Your task to perform on an android device: find which apps use the phone's location Image 0: 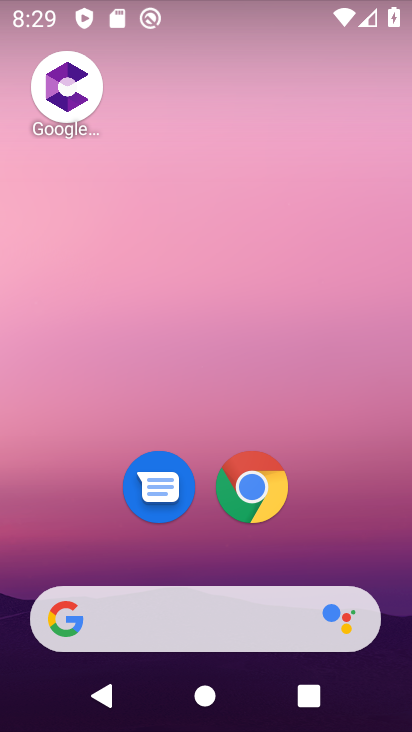
Step 0: drag from (237, 651) to (370, 115)
Your task to perform on an android device: find which apps use the phone's location Image 1: 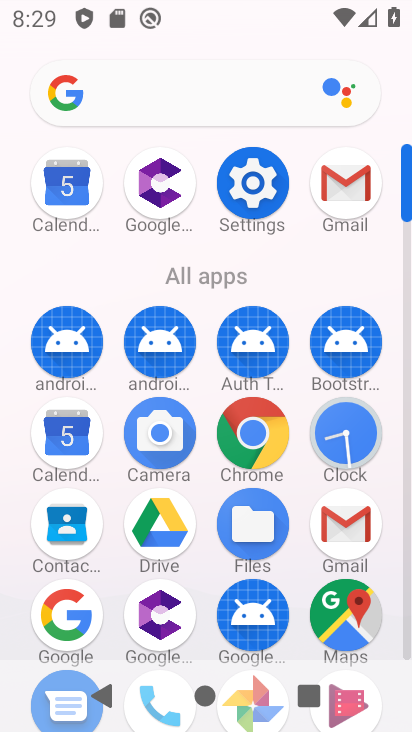
Step 1: click (366, 626)
Your task to perform on an android device: find which apps use the phone's location Image 2: 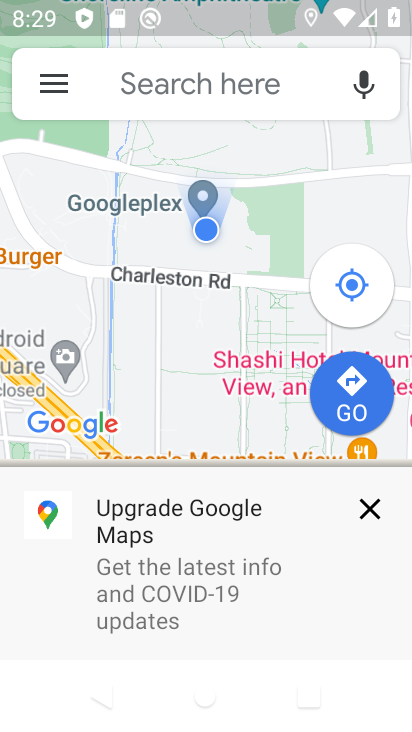
Step 2: press home button
Your task to perform on an android device: find which apps use the phone's location Image 3: 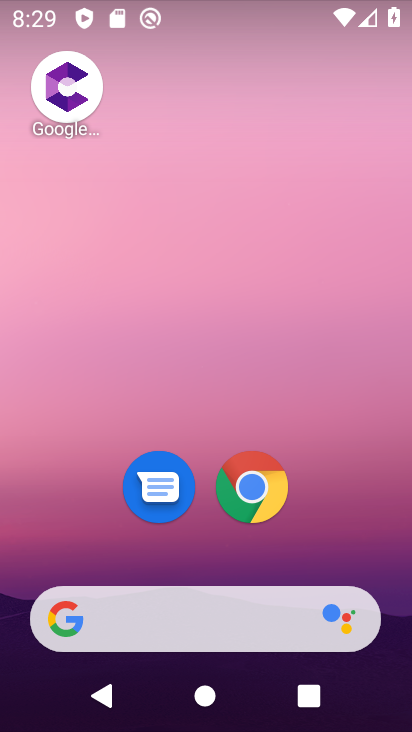
Step 3: drag from (301, 660) to (276, 123)
Your task to perform on an android device: find which apps use the phone's location Image 4: 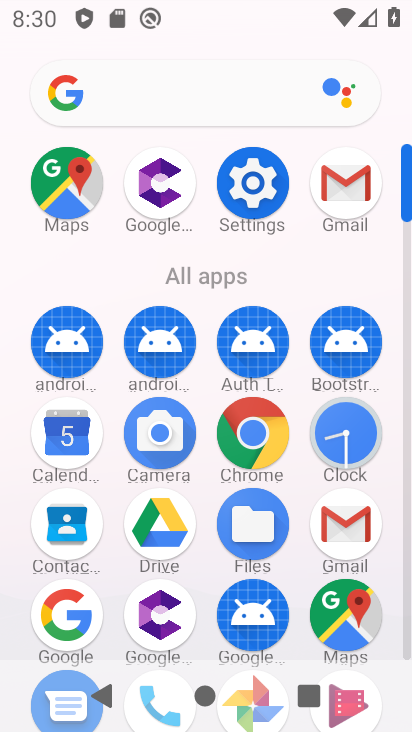
Step 4: click (245, 180)
Your task to perform on an android device: find which apps use the phone's location Image 5: 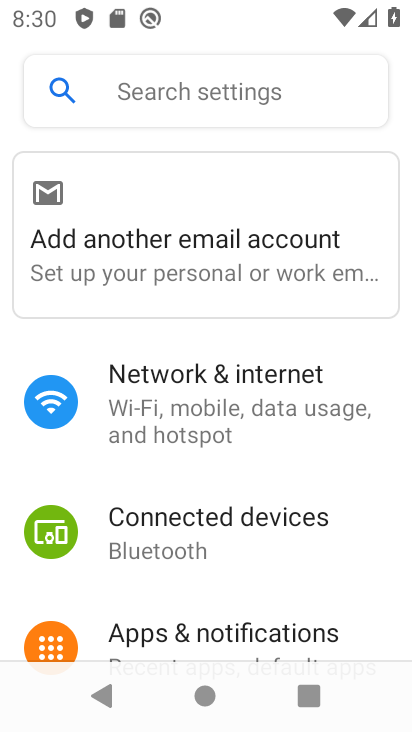
Step 5: click (202, 94)
Your task to perform on an android device: find which apps use the phone's location Image 6: 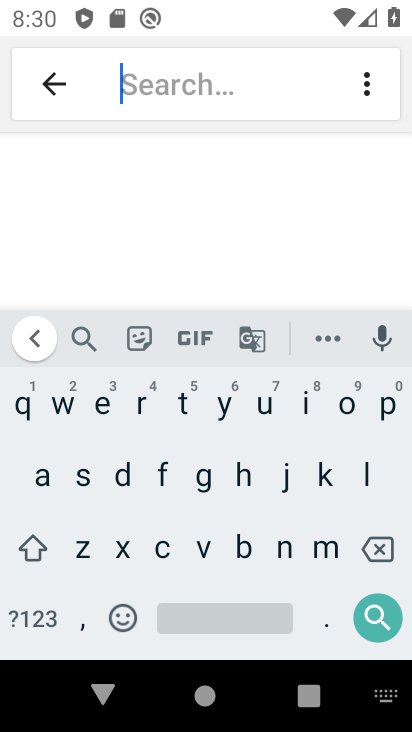
Step 6: click (364, 475)
Your task to perform on an android device: find which apps use the phone's location Image 7: 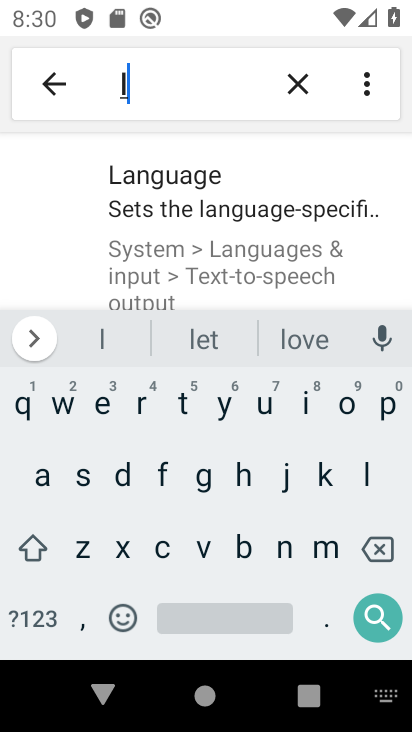
Step 7: click (340, 410)
Your task to perform on an android device: find which apps use the phone's location Image 8: 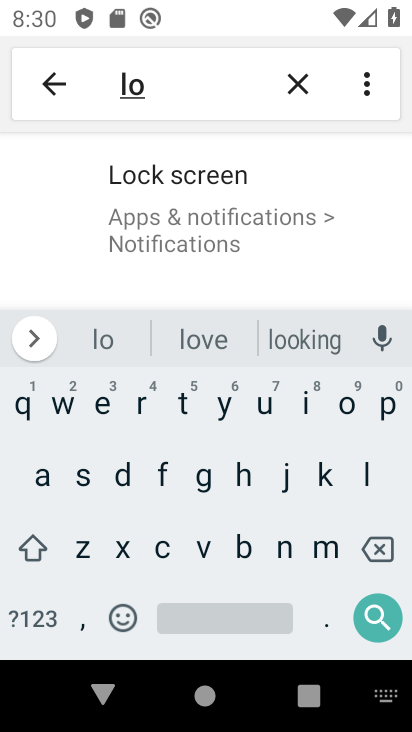
Step 8: click (159, 554)
Your task to perform on an android device: find which apps use the phone's location Image 9: 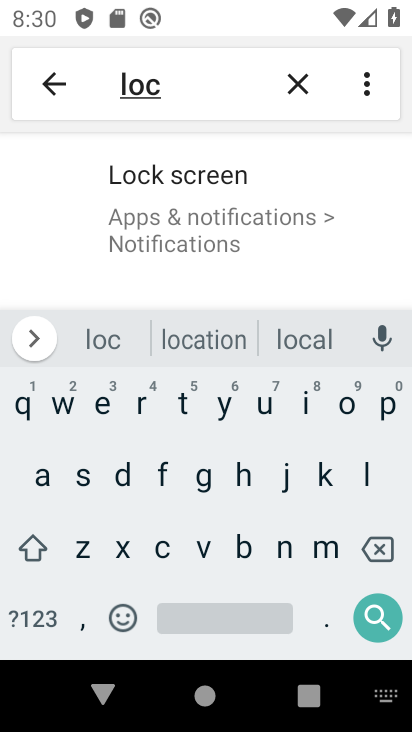
Step 9: click (34, 477)
Your task to perform on an android device: find which apps use the phone's location Image 10: 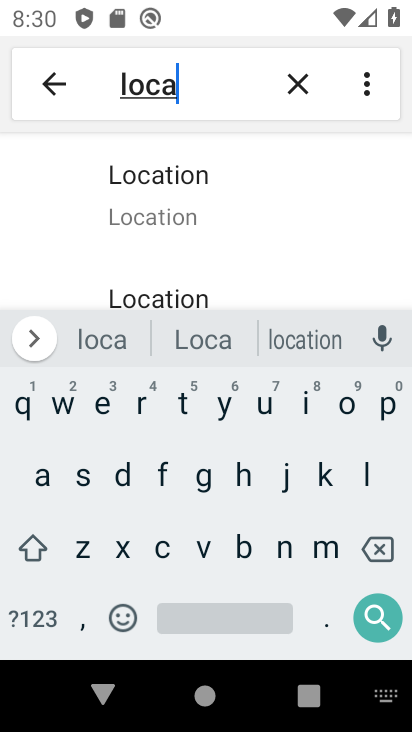
Step 10: click (200, 222)
Your task to perform on an android device: find which apps use the phone's location Image 11: 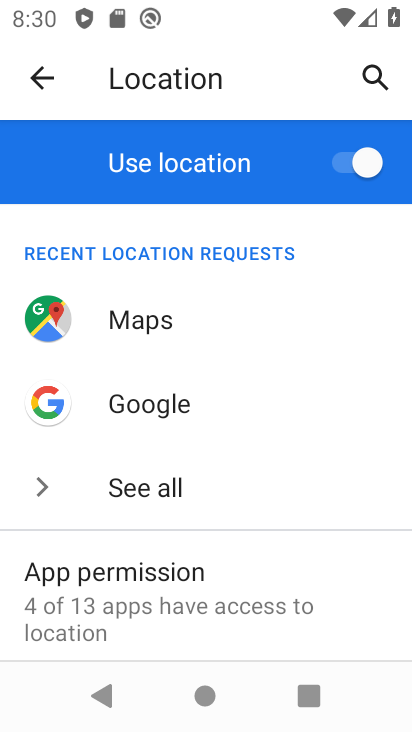
Step 11: task complete